Your task to perform on an android device: What is the news today? Image 0: 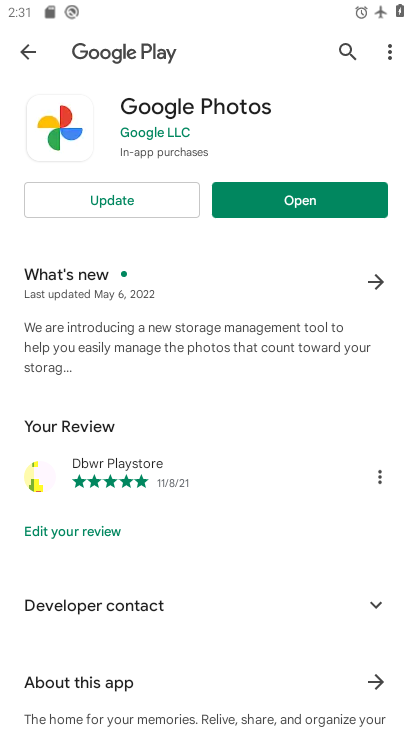
Step 0: press home button
Your task to perform on an android device: What is the news today? Image 1: 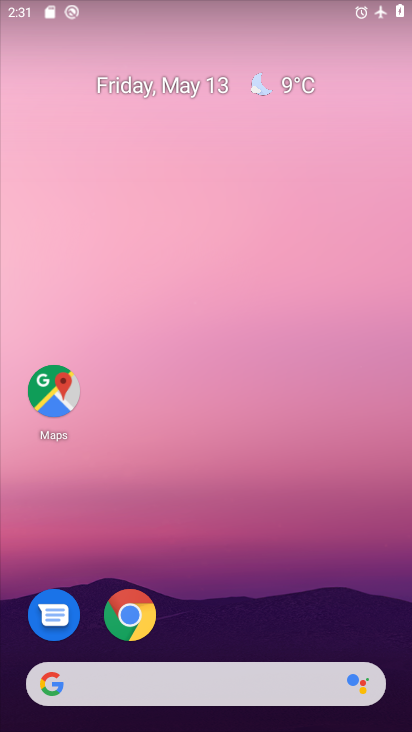
Step 1: click (223, 692)
Your task to perform on an android device: What is the news today? Image 2: 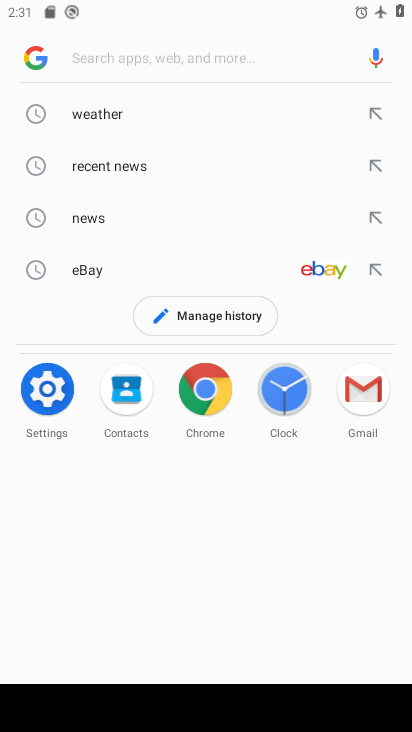
Step 2: click (45, 160)
Your task to perform on an android device: What is the news today? Image 3: 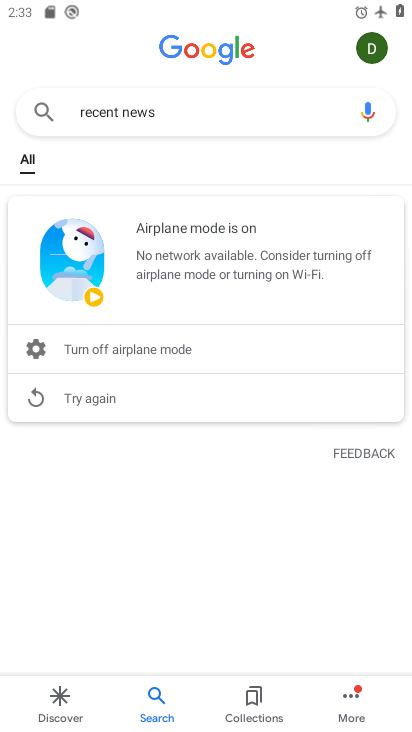
Step 3: task complete